Your task to perform on an android device: find which apps use the phone's location Image 0: 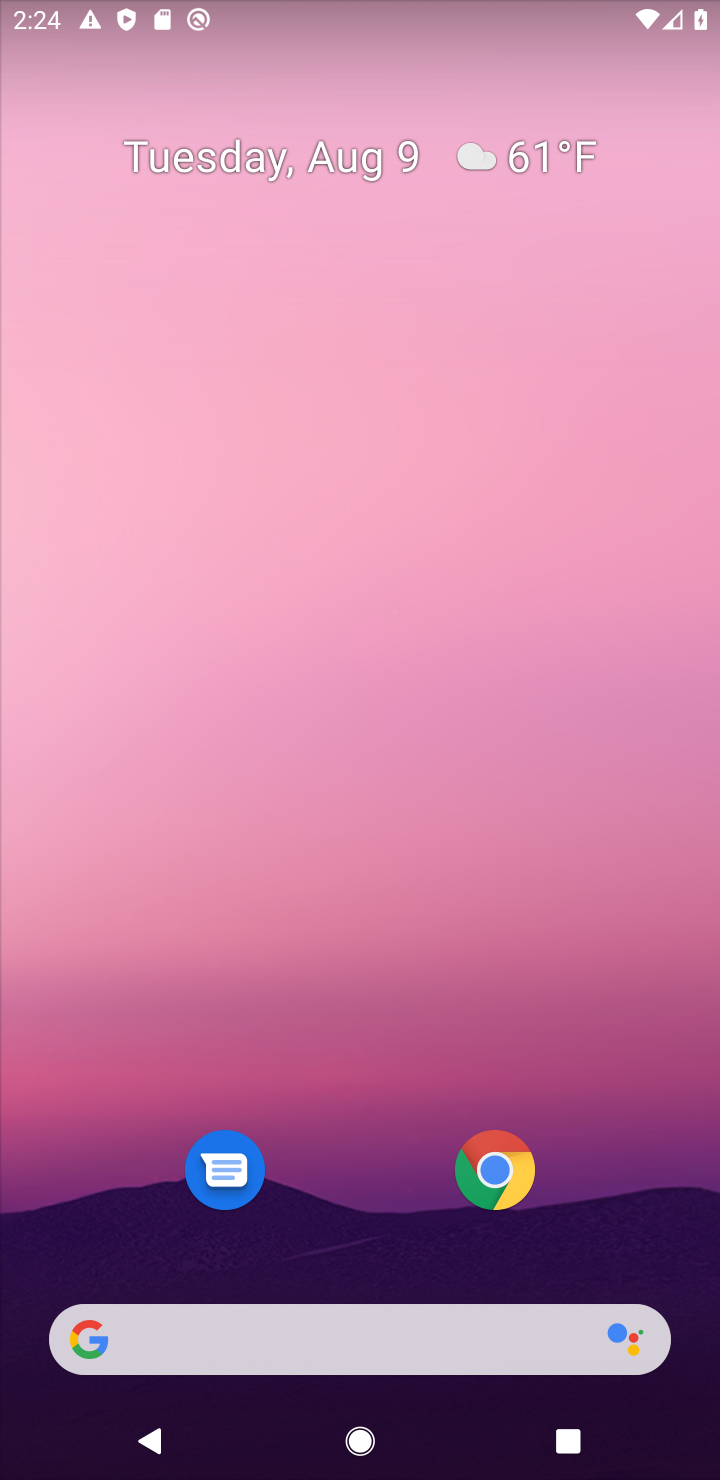
Step 0: drag from (346, 1002) to (548, 15)
Your task to perform on an android device: find which apps use the phone's location Image 1: 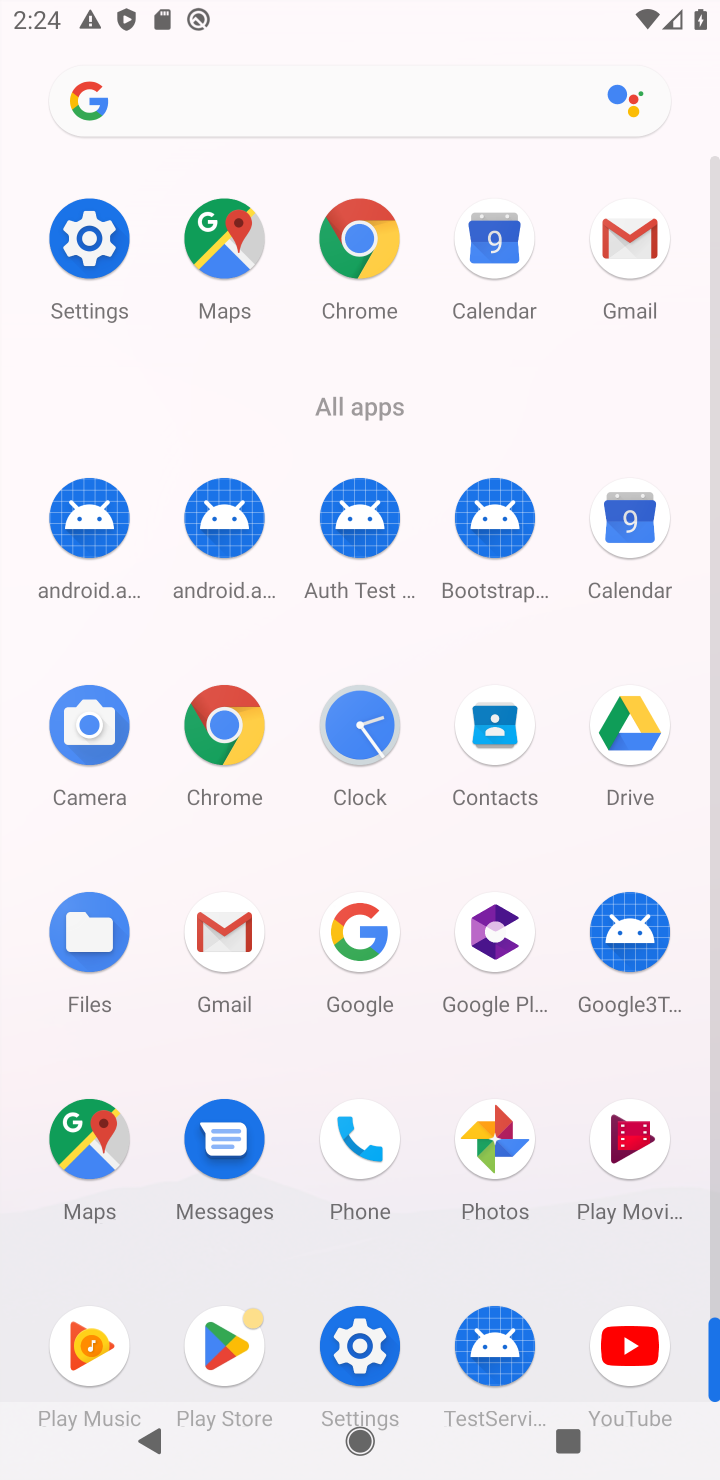
Step 1: click (114, 293)
Your task to perform on an android device: find which apps use the phone's location Image 2: 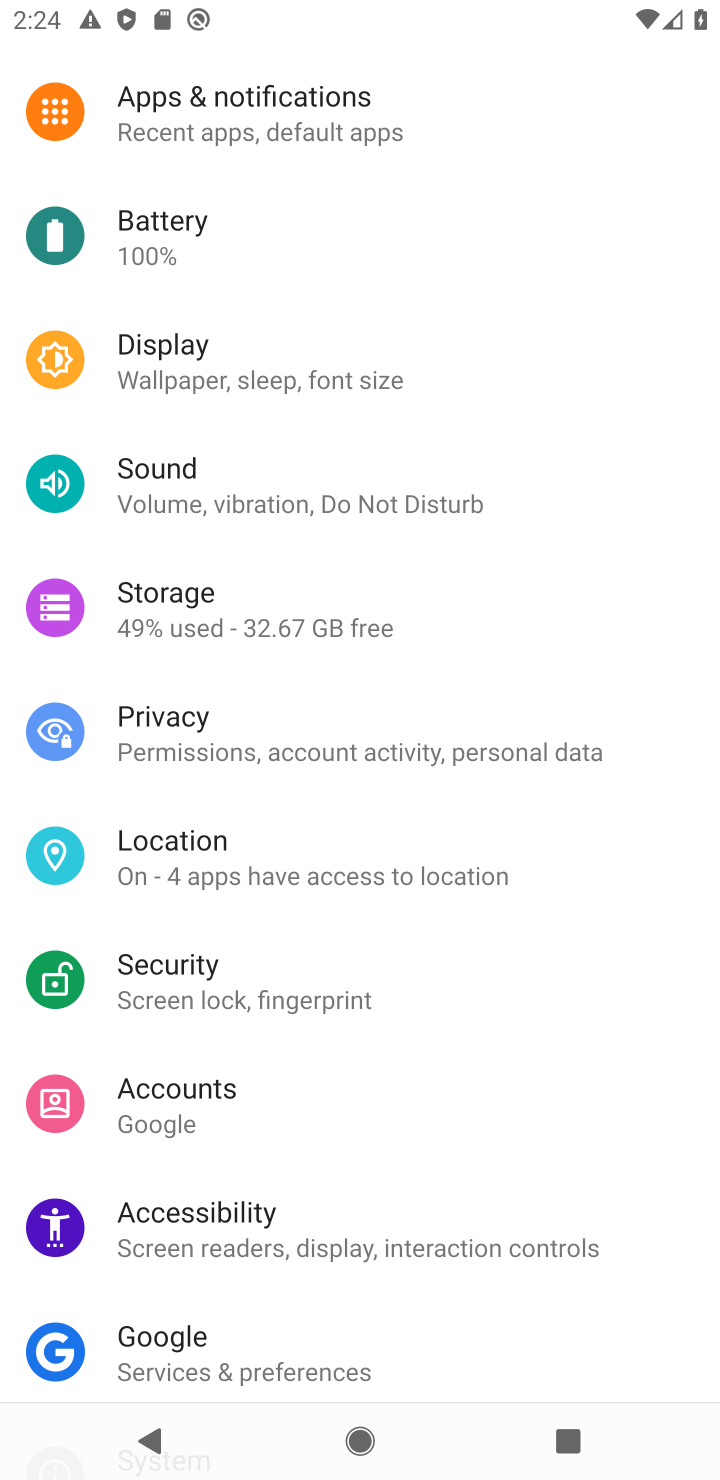
Step 2: drag from (278, 556) to (252, 1424)
Your task to perform on an android device: find which apps use the phone's location Image 3: 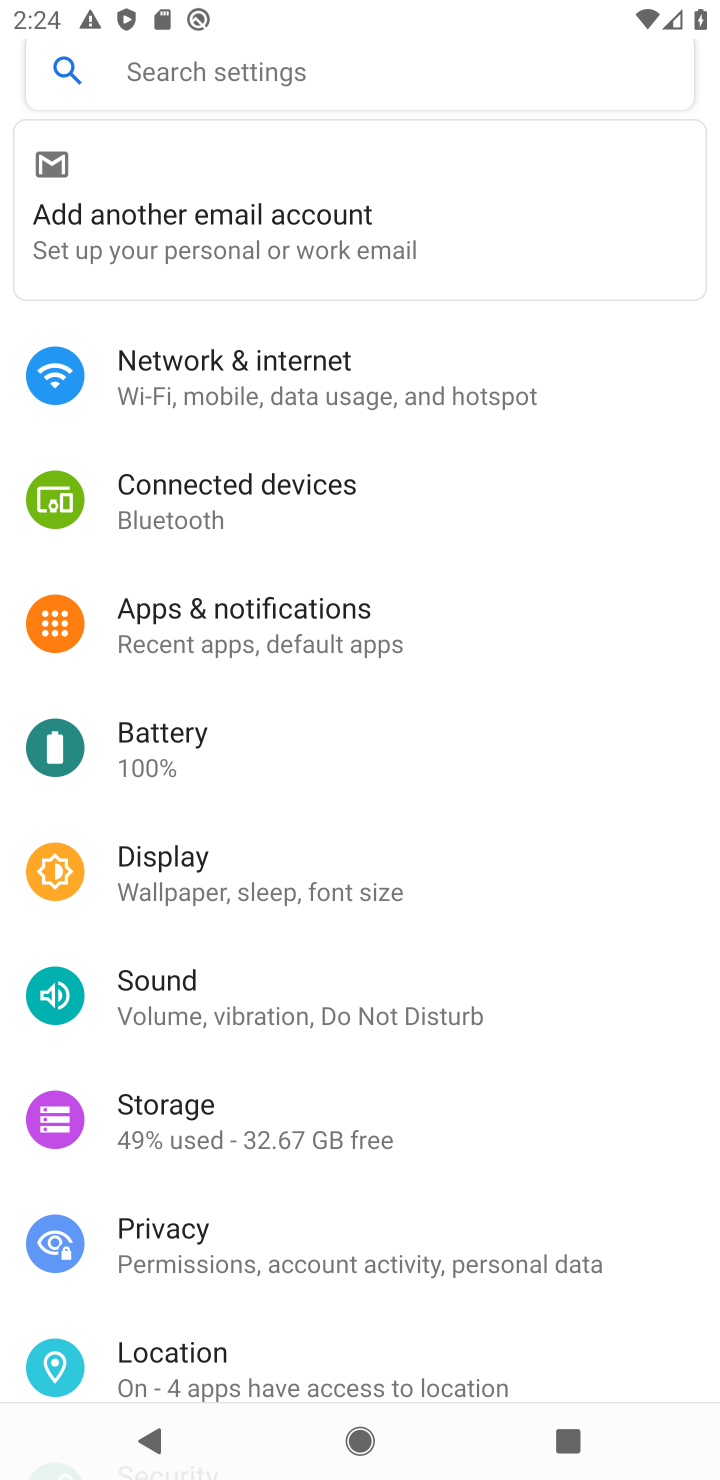
Step 3: click (286, 1343)
Your task to perform on an android device: find which apps use the phone's location Image 4: 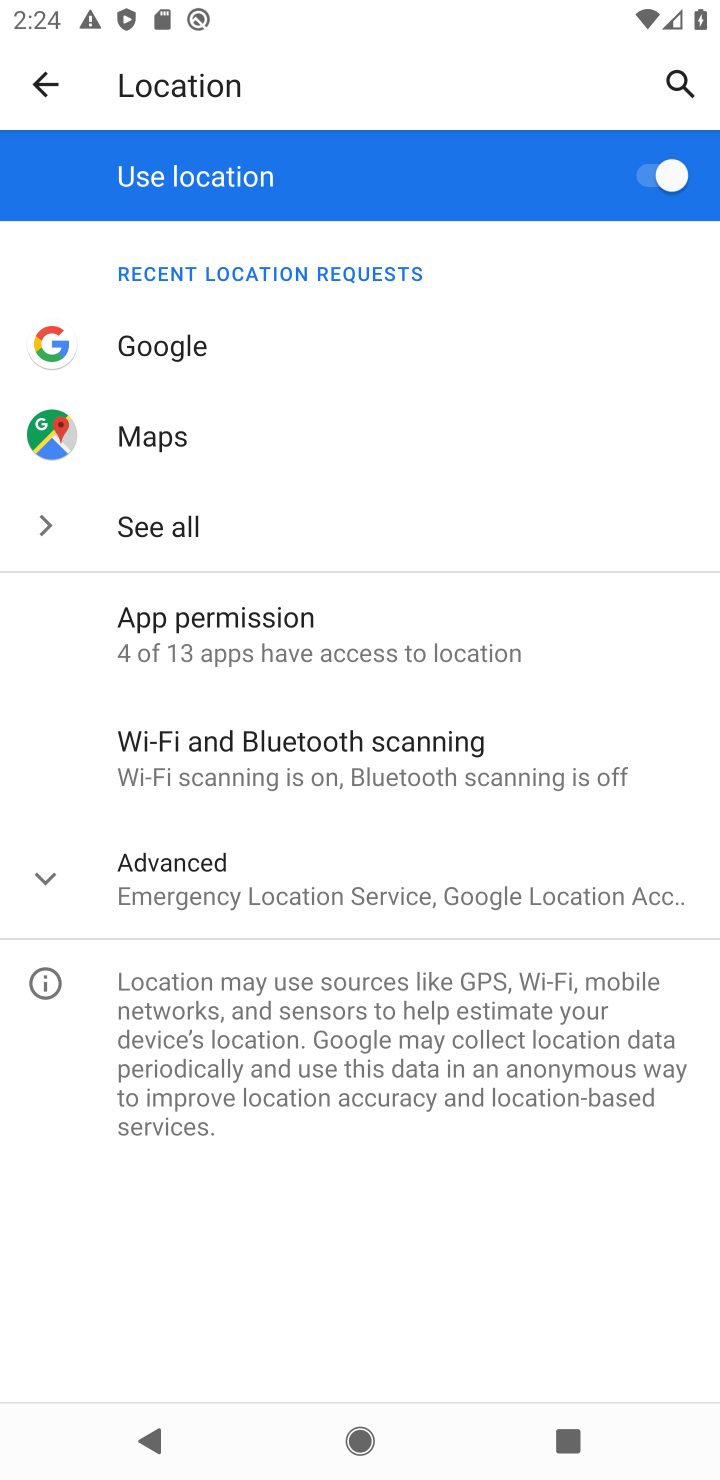
Step 4: click (239, 611)
Your task to perform on an android device: find which apps use the phone's location Image 5: 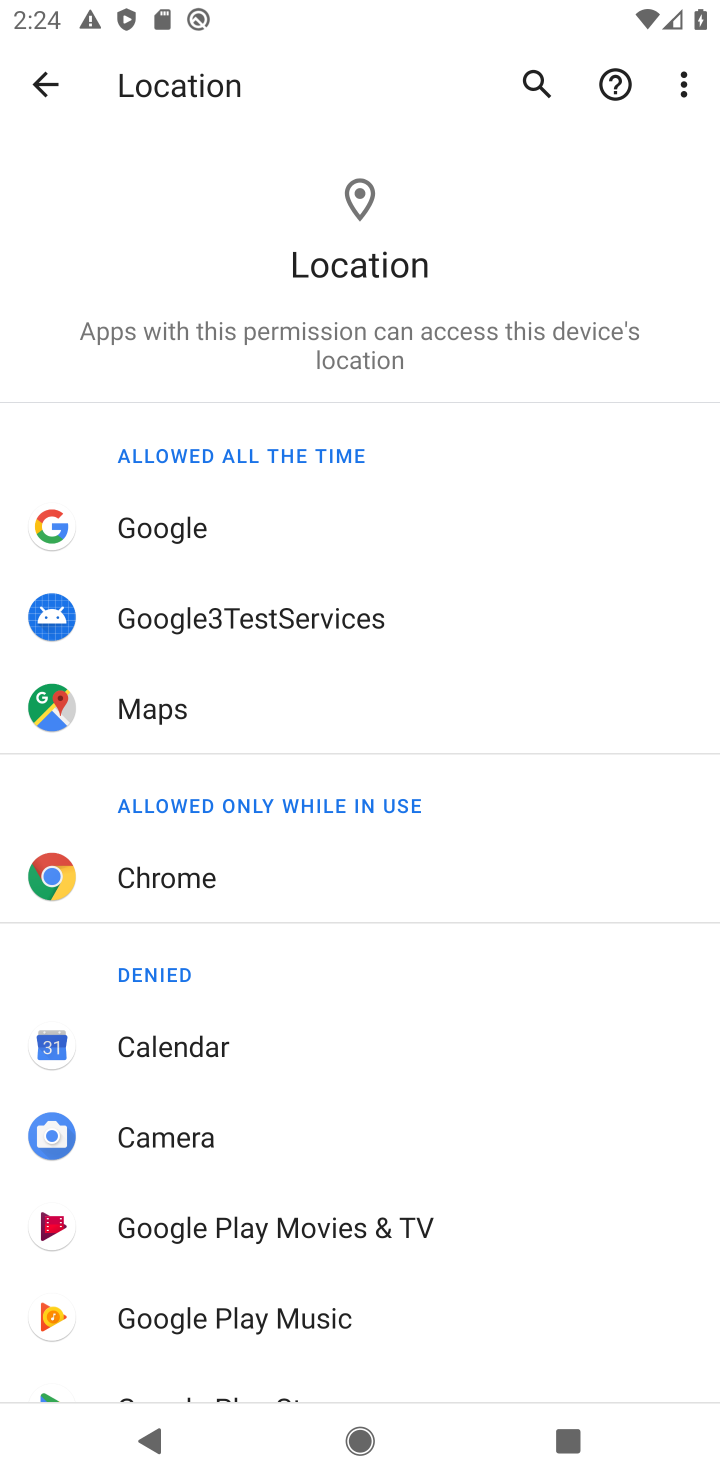
Step 5: task complete